Your task to perform on an android device: choose inbox layout in the gmail app Image 0: 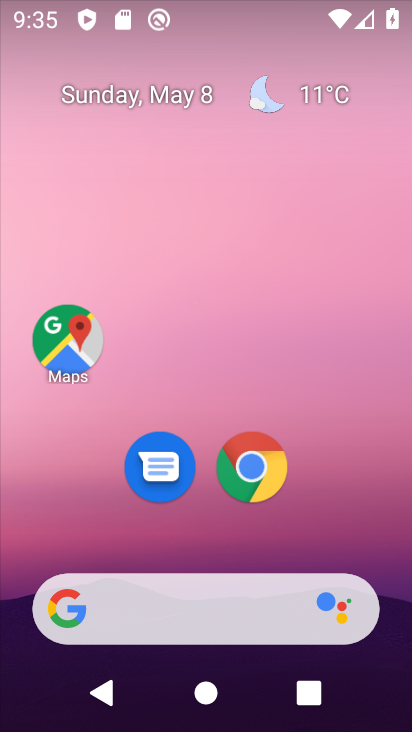
Step 0: drag from (27, 666) to (305, 232)
Your task to perform on an android device: choose inbox layout in the gmail app Image 1: 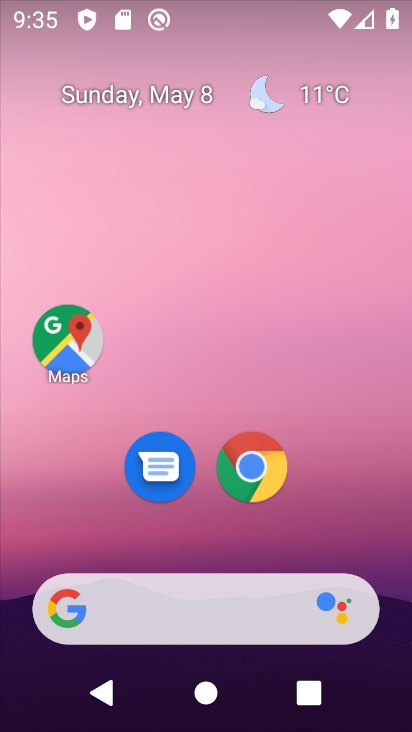
Step 1: drag from (59, 567) to (284, 164)
Your task to perform on an android device: choose inbox layout in the gmail app Image 2: 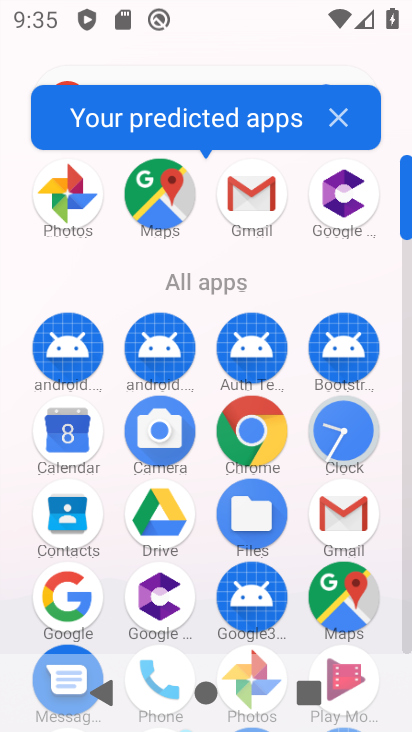
Step 2: click (249, 185)
Your task to perform on an android device: choose inbox layout in the gmail app Image 3: 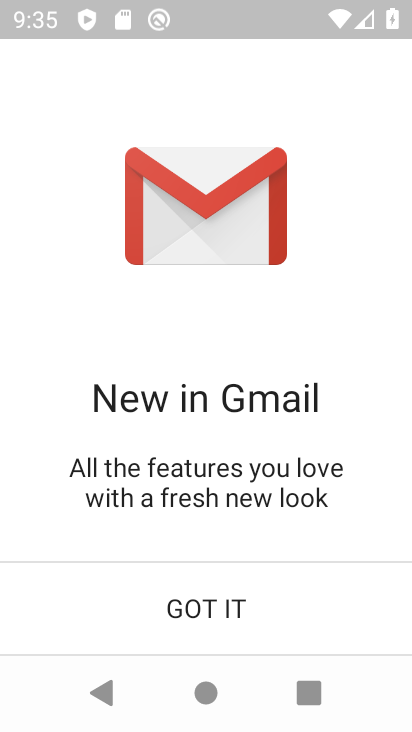
Step 3: click (224, 599)
Your task to perform on an android device: choose inbox layout in the gmail app Image 4: 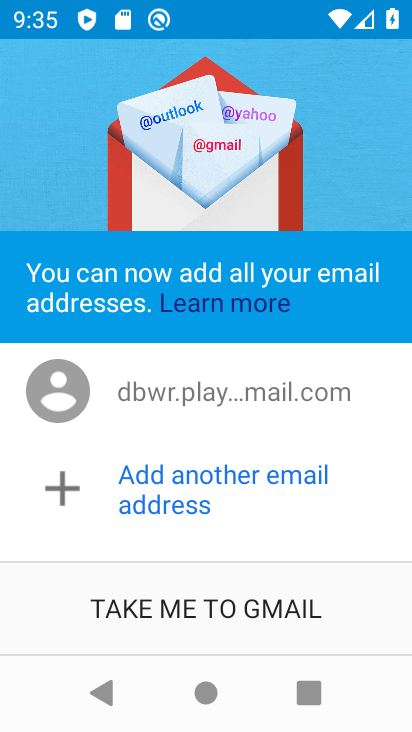
Step 4: click (224, 599)
Your task to perform on an android device: choose inbox layout in the gmail app Image 5: 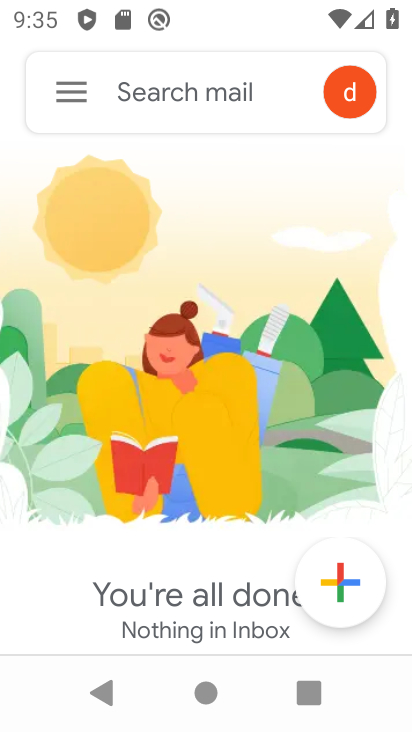
Step 5: task complete